Your task to perform on an android device: set default search engine in the chrome app Image 0: 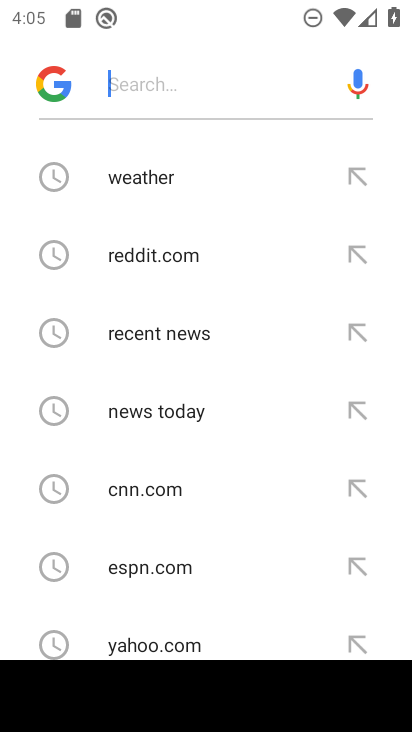
Step 0: press home button
Your task to perform on an android device: set default search engine in the chrome app Image 1: 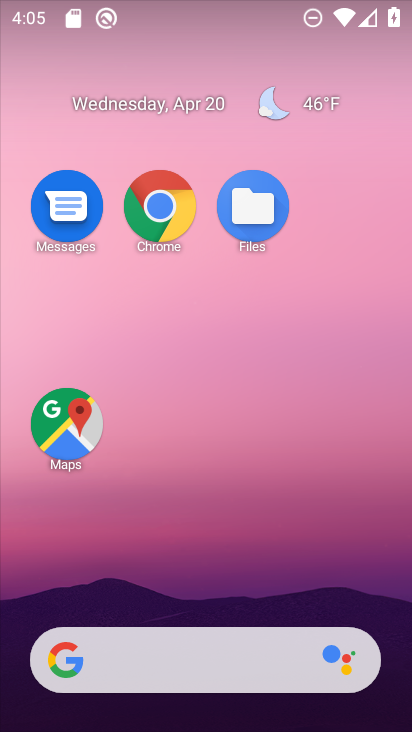
Step 1: click (168, 204)
Your task to perform on an android device: set default search engine in the chrome app Image 2: 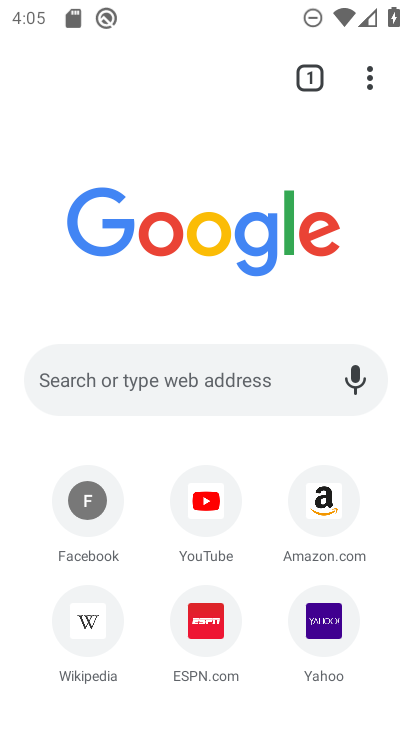
Step 2: click (379, 78)
Your task to perform on an android device: set default search engine in the chrome app Image 3: 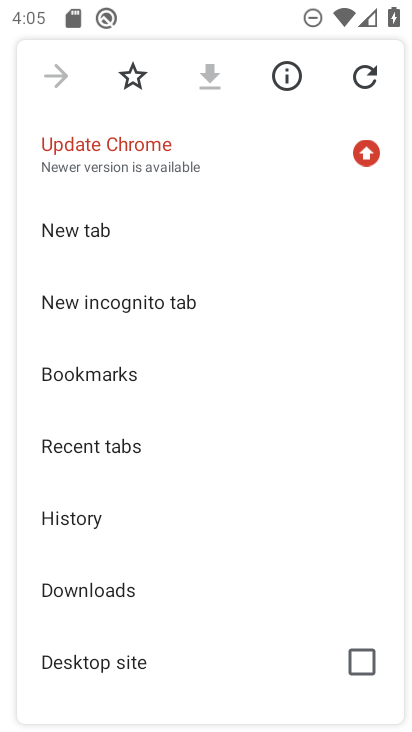
Step 3: drag from (125, 541) to (161, 214)
Your task to perform on an android device: set default search engine in the chrome app Image 4: 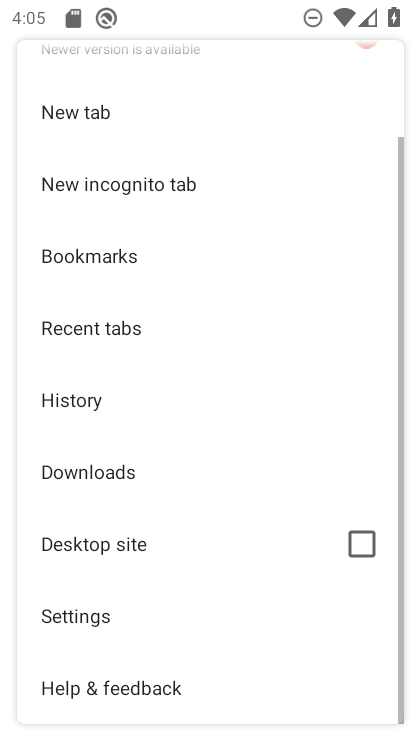
Step 4: click (67, 620)
Your task to perform on an android device: set default search engine in the chrome app Image 5: 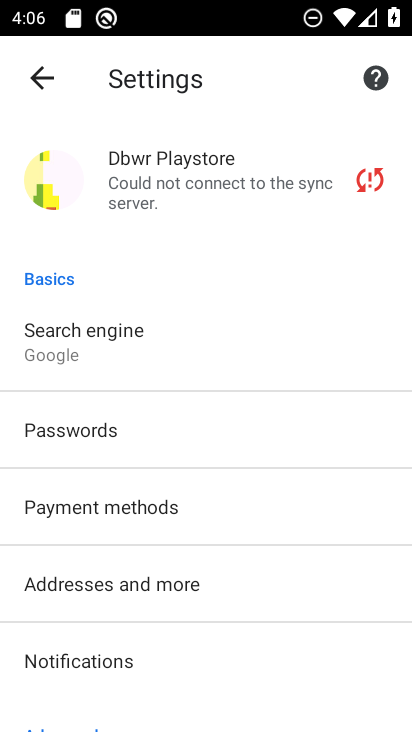
Step 5: click (116, 358)
Your task to perform on an android device: set default search engine in the chrome app Image 6: 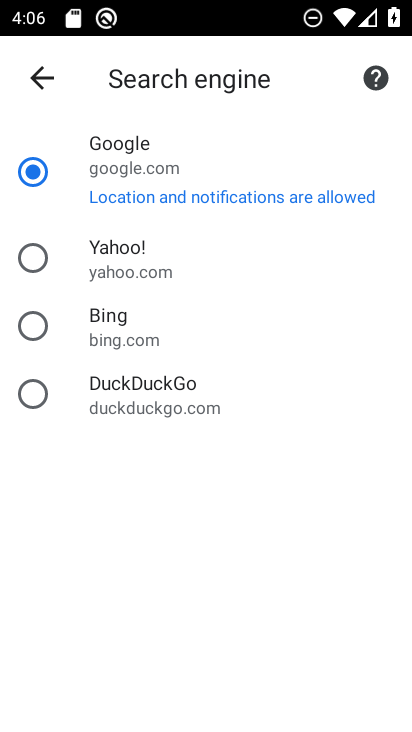
Step 6: task complete